Your task to perform on an android device: Open Google Chrome and open the bookmarks view Image 0: 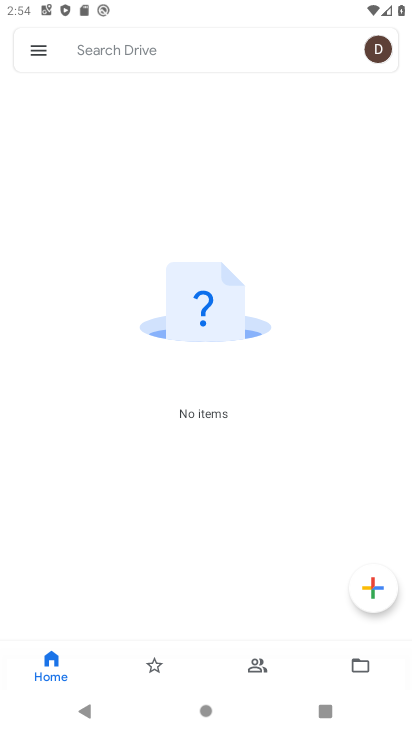
Step 0: press home button
Your task to perform on an android device: Open Google Chrome and open the bookmarks view Image 1: 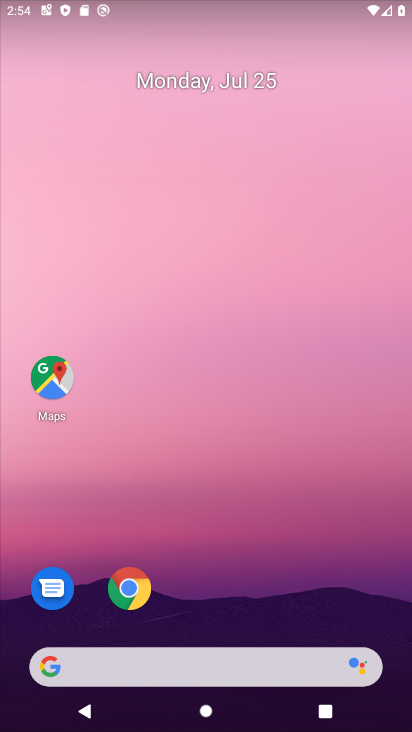
Step 1: click (135, 586)
Your task to perform on an android device: Open Google Chrome and open the bookmarks view Image 2: 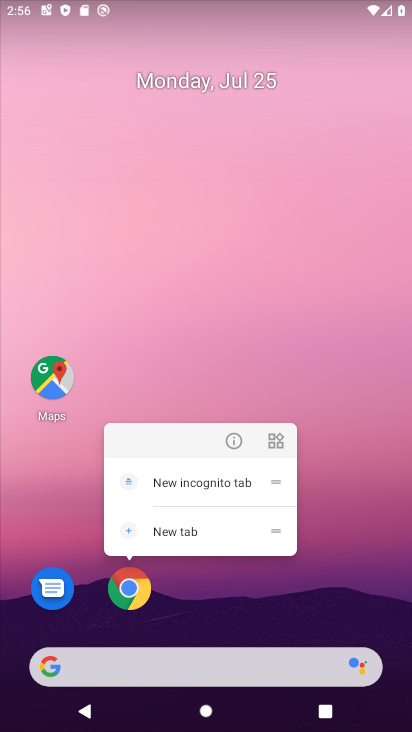
Step 2: click (151, 585)
Your task to perform on an android device: Open Google Chrome and open the bookmarks view Image 3: 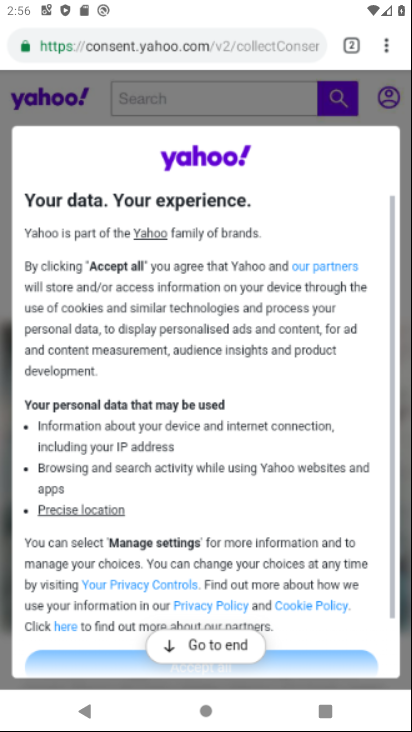
Step 3: click (387, 57)
Your task to perform on an android device: Open Google Chrome and open the bookmarks view Image 4: 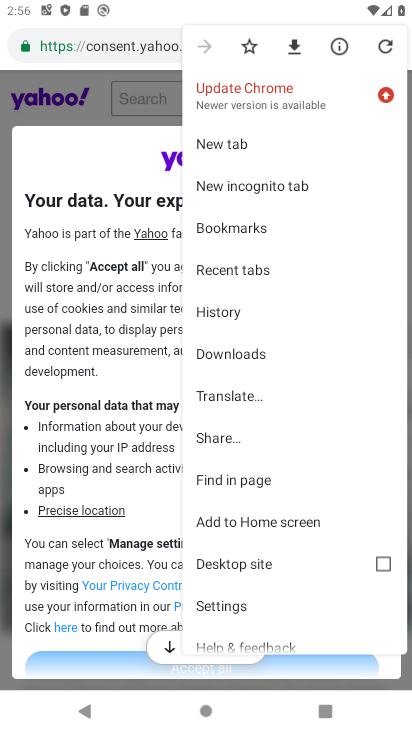
Step 4: click (293, 224)
Your task to perform on an android device: Open Google Chrome and open the bookmarks view Image 5: 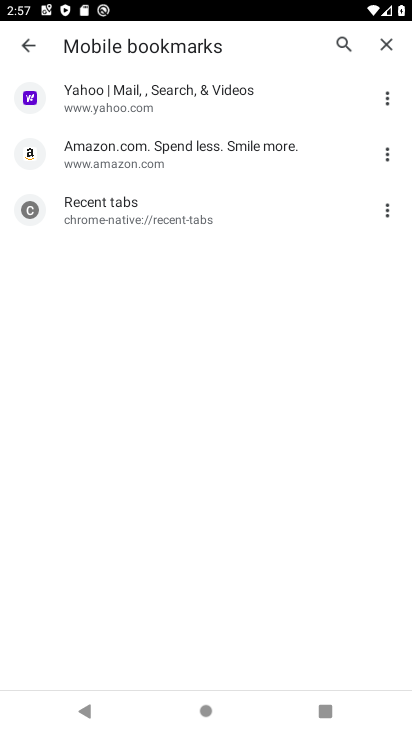
Step 5: task complete